Your task to perform on an android device: open the mobile data screen to see how much data has been used Image 0: 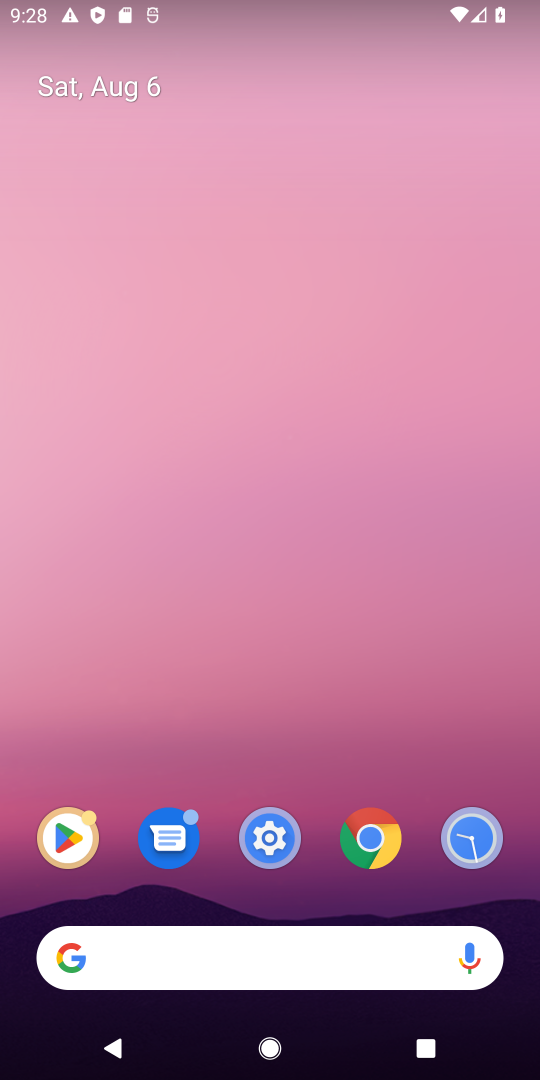
Step 0: drag from (198, 885) to (133, 16)
Your task to perform on an android device: open the mobile data screen to see how much data has been used Image 1: 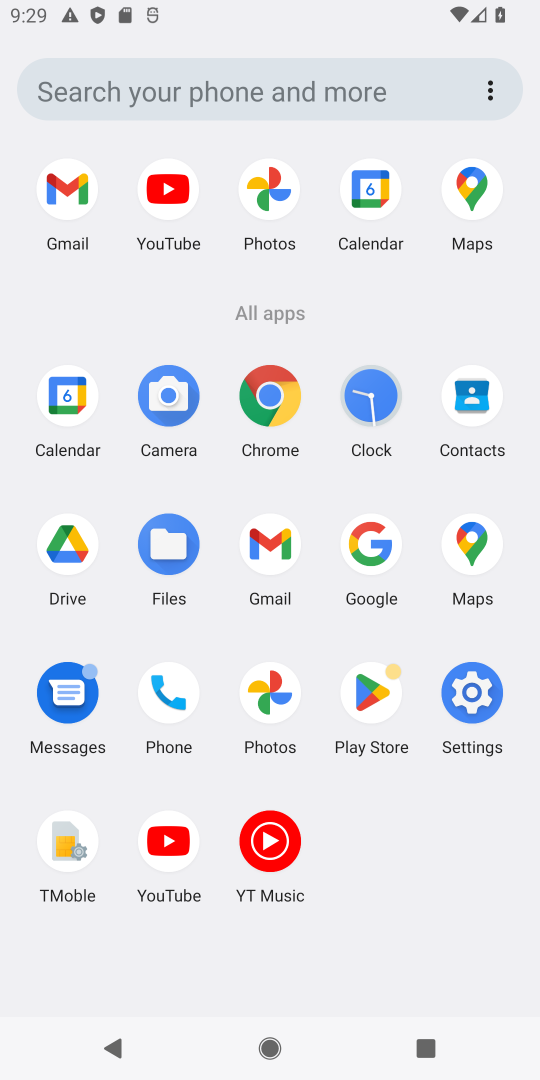
Step 1: click (476, 705)
Your task to perform on an android device: open the mobile data screen to see how much data has been used Image 2: 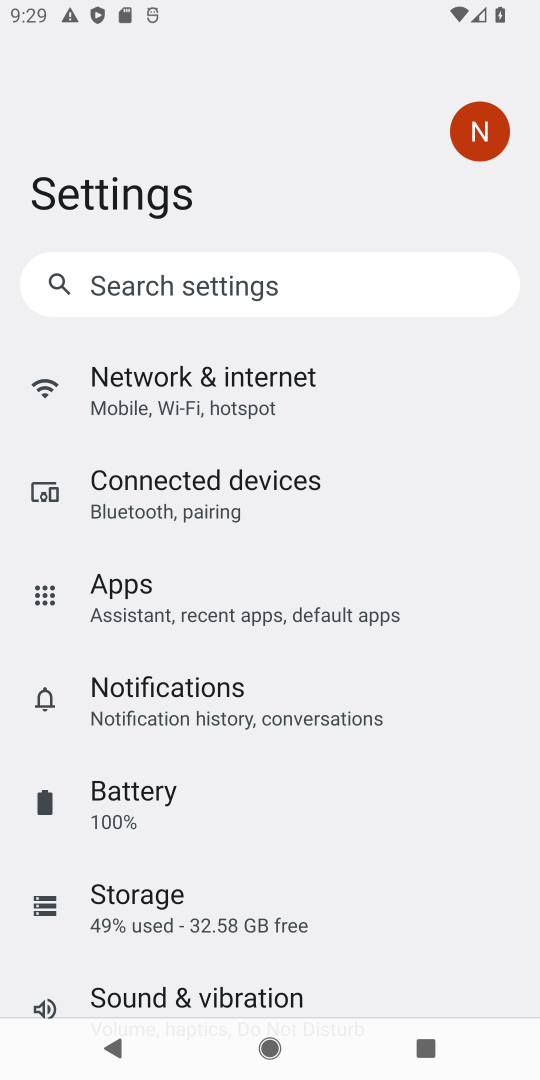
Step 2: click (179, 395)
Your task to perform on an android device: open the mobile data screen to see how much data has been used Image 3: 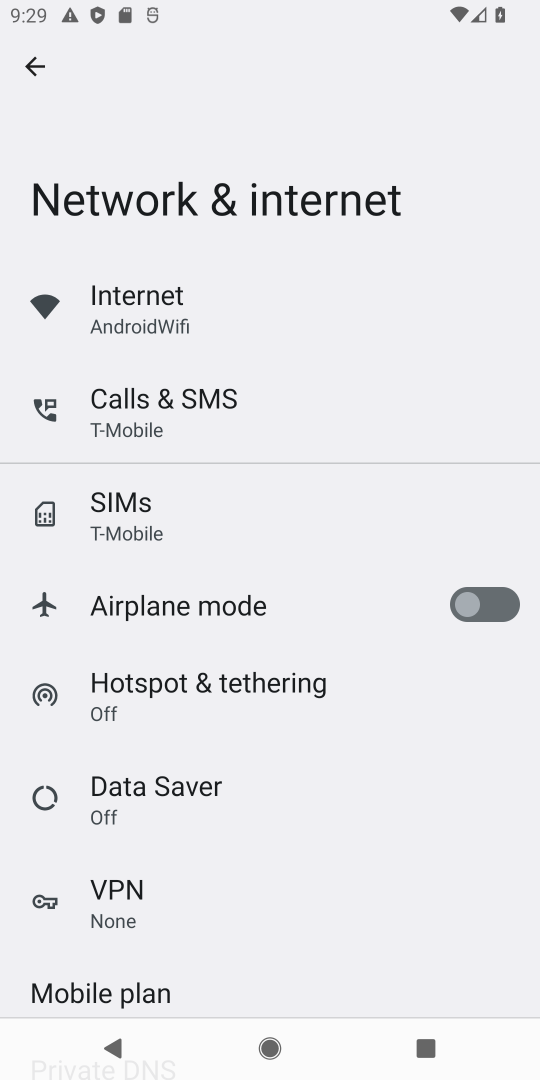
Step 3: click (86, 309)
Your task to perform on an android device: open the mobile data screen to see how much data has been used Image 4: 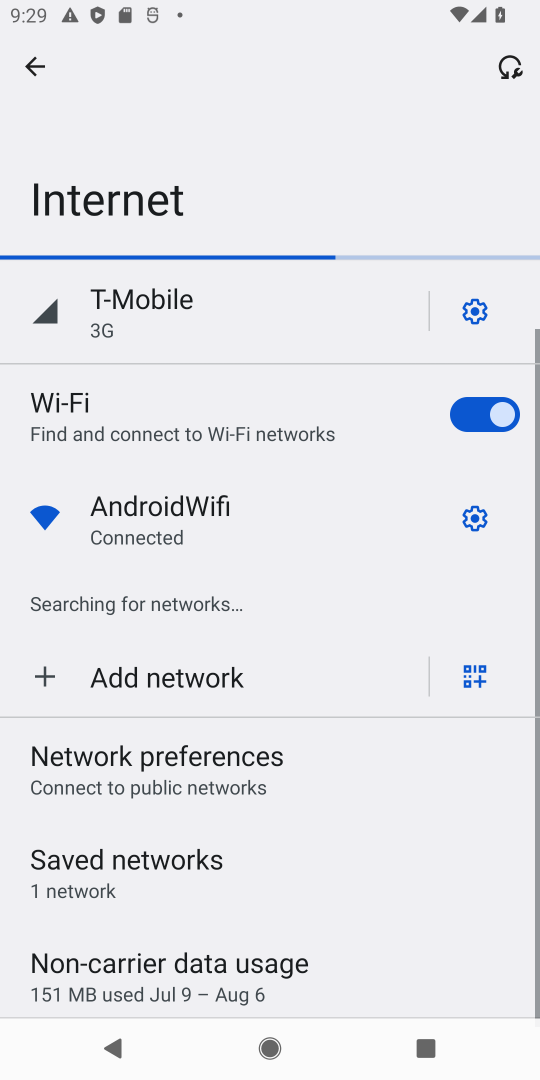
Step 4: click (85, 310)
Your task to perform on an android device: open the mobile data screen to see how much data has been used Image 5: 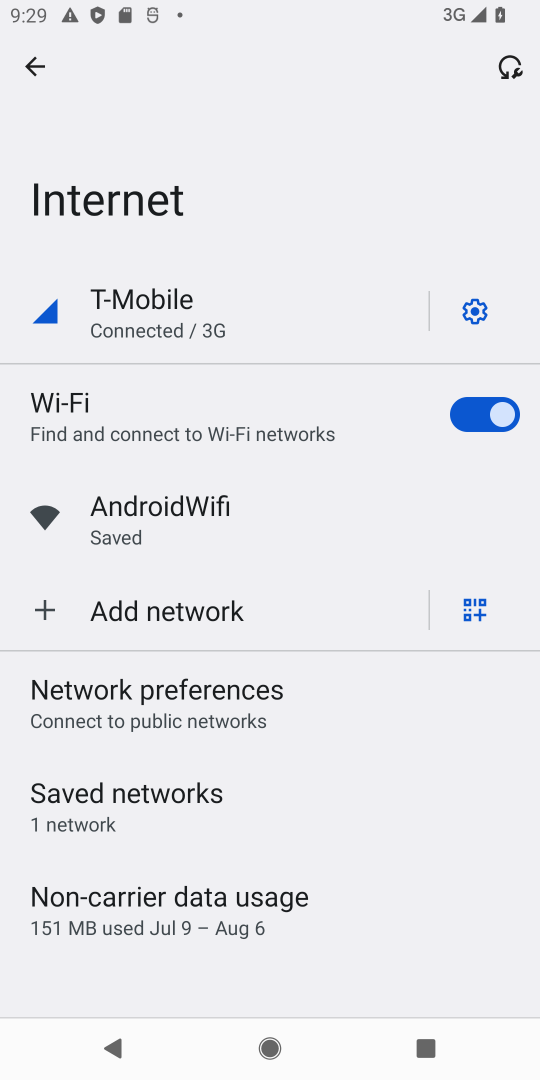
Step 5: click (85, 309)
Your task to perform on an android device: open the mobile data screen to see how much data has been used Image 6: 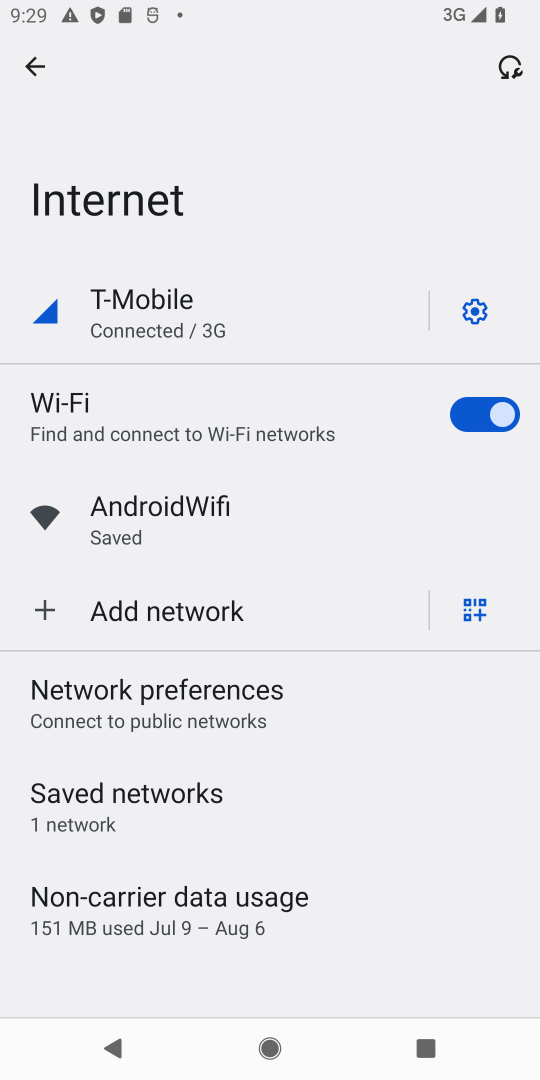
Step 6: task complete